Your task to perform on an android device: Open notification settings Image 0: 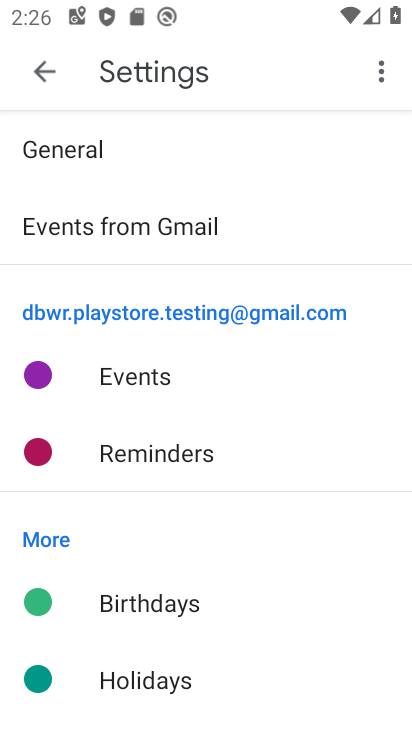
Step 0: drag from (195, 545) to (229, 42)
Your task to perform on an android device: Open notification settings Image 1: 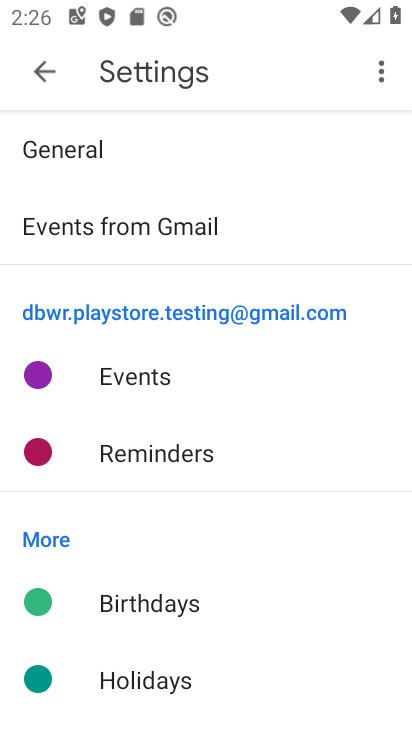
Step 1: press home button
Your task to perform on an android device: Open notification settings Image 2: 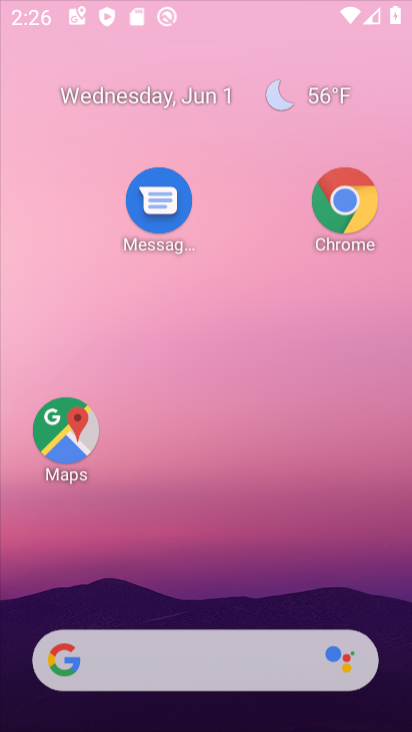
Step 2: drag from (157, 503) to (220, 24)
Your task to perform on an android device: Open notification settings Image 3: 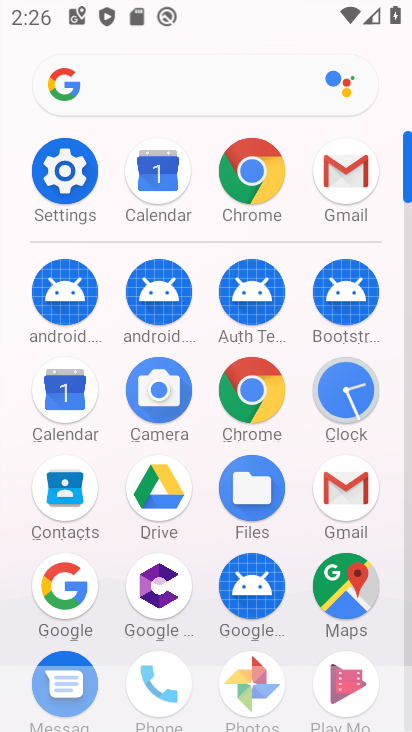
Step 3: click (77, 163)
Your task to perform on an android device: Open notification settings Image 4: 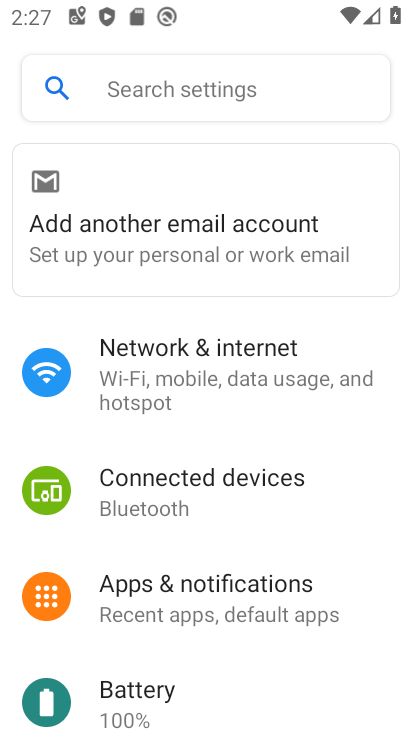
Step 4: click (204, 610)
Your task to perform on an android device: Open notification settings Image 5: 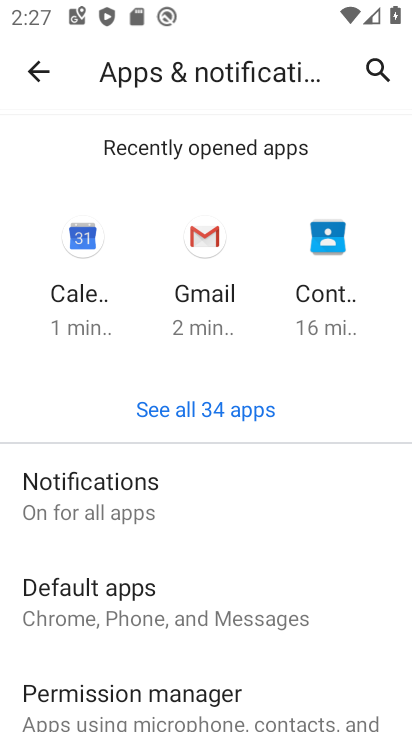
Step 5: click (126, 507)
Your task to perform on an android device: Open notification settings Image 6: 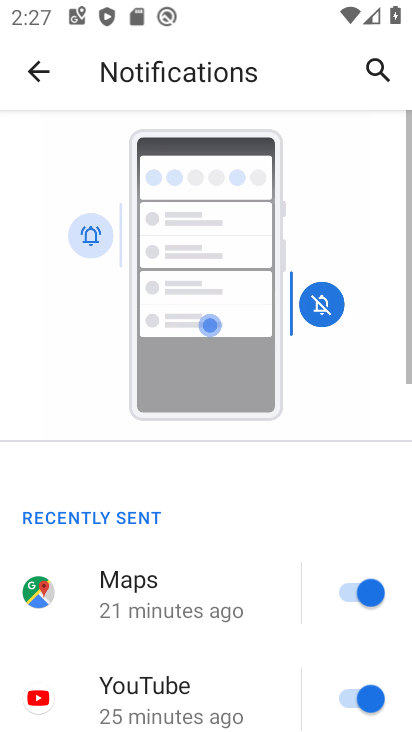
Step 6: task complete